Your task to perform on an android device: When is my next meeting? Image 0: 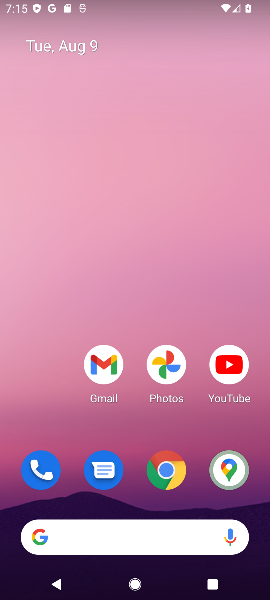
Step 0: drag from (121, 582) to (211, 141)
Your task to perform on an android device: When is my next meeting? Image 1: 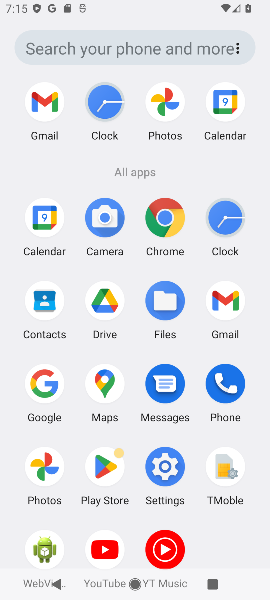
Step 1: click (199, 106)
Your task to perform on an android device: When is my next meeting? Image 2: 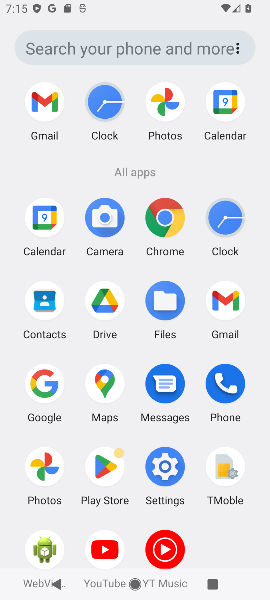
Step 2: click (199, 106)
Your task to perform on an android device: When is my next meeting? Image 3: 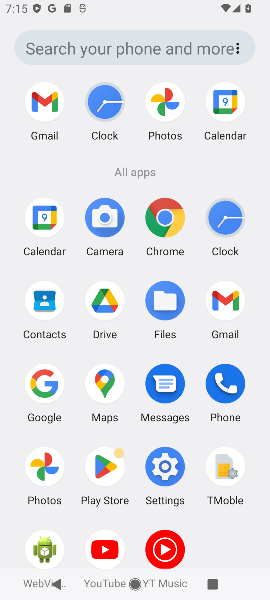
Step 3: click (231, 103)
Your task to perform on an android device: When is my next meeting? Image 4: 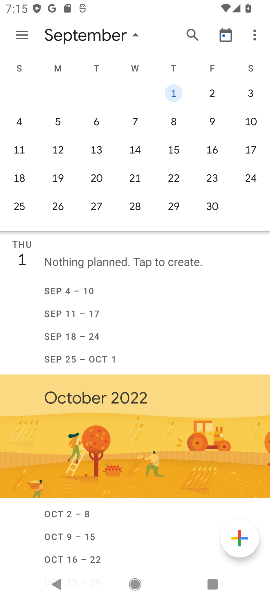
Step 4: click (24, 40)
Your task to perform on an android device: When is my next meeting? Image 5: 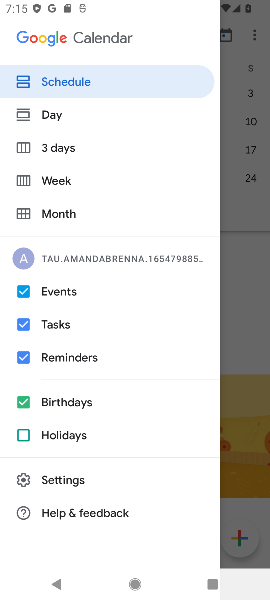
Step 5: click (103, 93)
Your task to perform on an android device: When is my next meeting? Image 6: 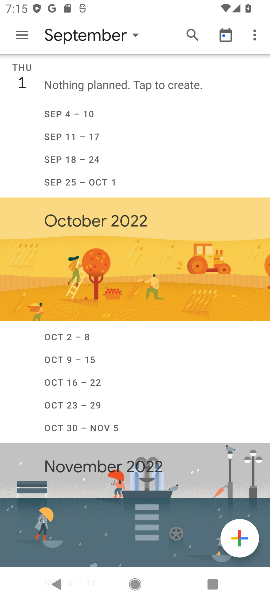
Step 6: task complete